Your task to perform on an android device: turn on javascript in the chrome app Image 0: 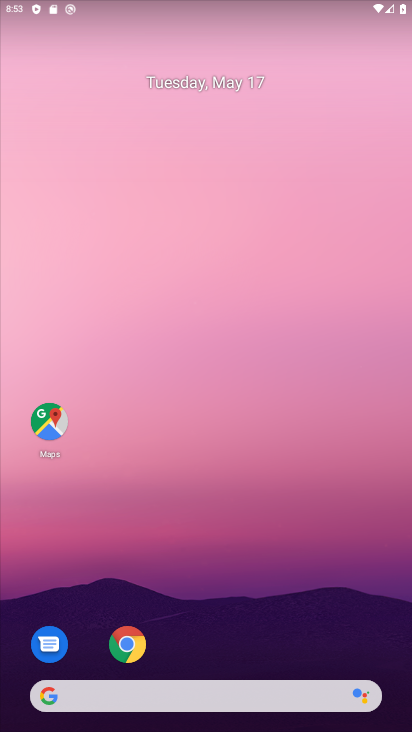
Step 0: press home button
Your task to perform on an android device: turn on javascript in the chrome app Image 1: 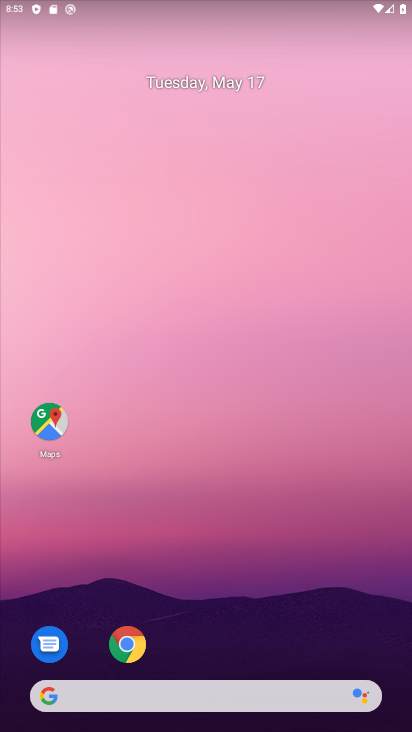
Step 1: click (126, 641)
Your task to perform on an android device: turn on javascript in the chrome app Image 2: 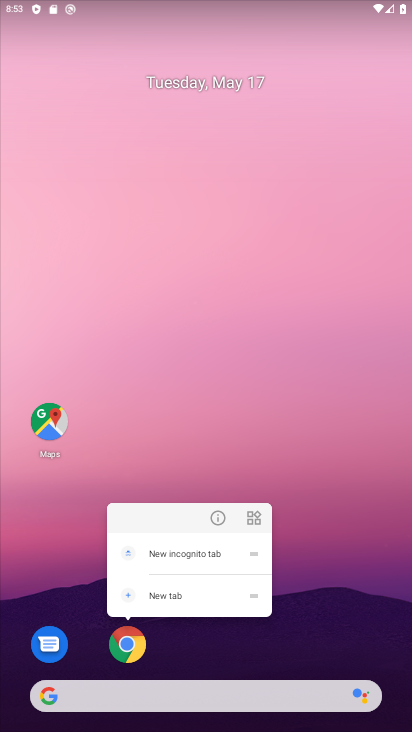
Step 2: click (126, 641)
Your task to perform on an android device: turn on javascript in the chrome app Image 3: 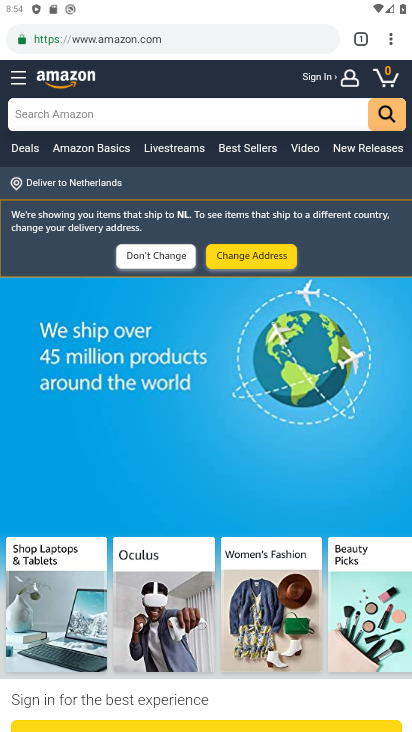
Step 3: click (392, 33)
Your task to perform on an android device: turn on javascript in the chrome app Image 4: 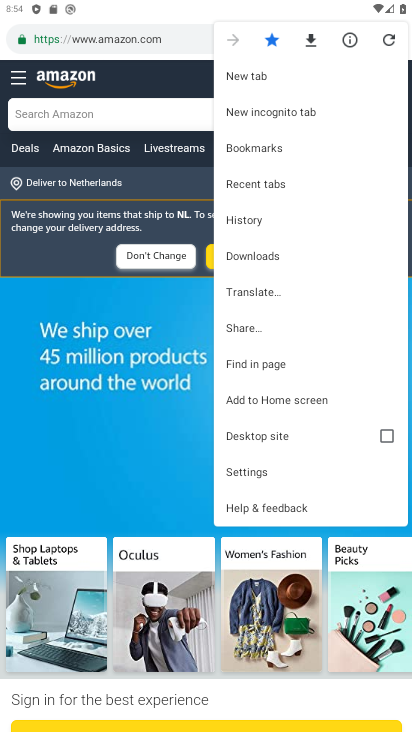
Step 4: click (270, 471)
Your task to perform on an android device: turn on javascript in the chrome app Image 5: 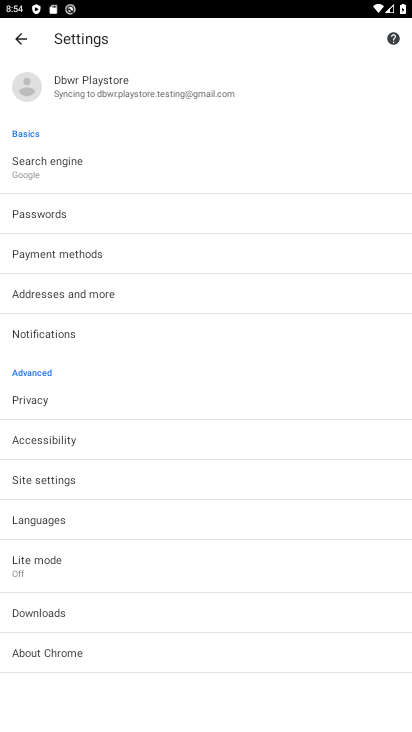
Step 5: click (92, 478)
Your task to perform on an android device: turn on javascript in the chrome app Image 6: 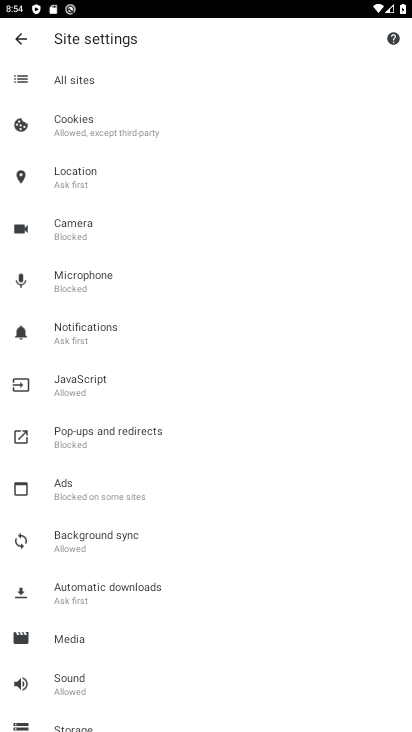
Step 6: click (111, 382)
Your task to perform on an android device: turn on javascript in the chrome app Image 7: 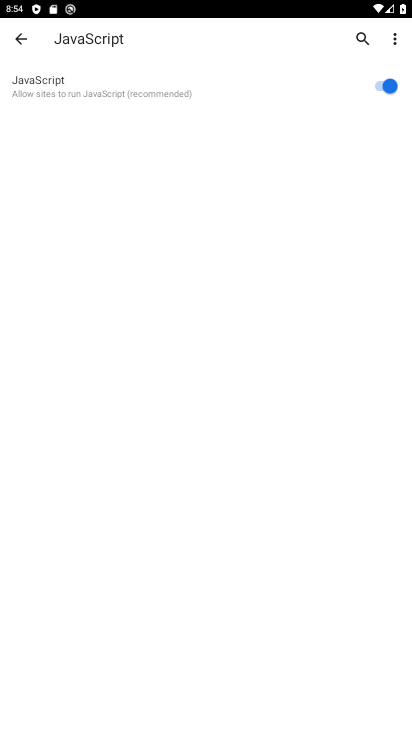
Step 7: task complete